Your task to perform on an android device: Open eBay Image 0: 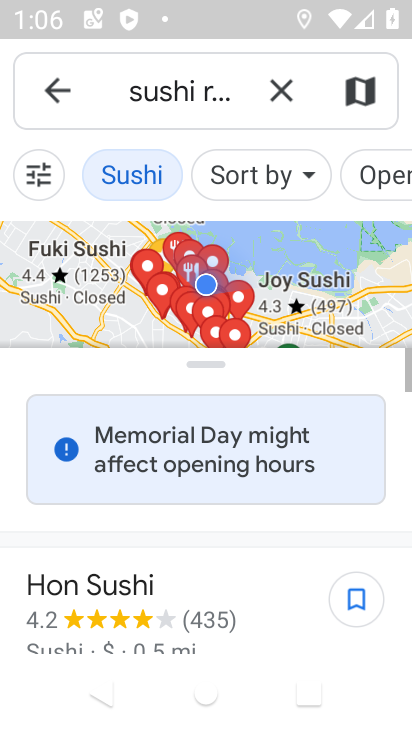
Step 0: press home button
Your task to perform on an android device: Open eBay Image 1: 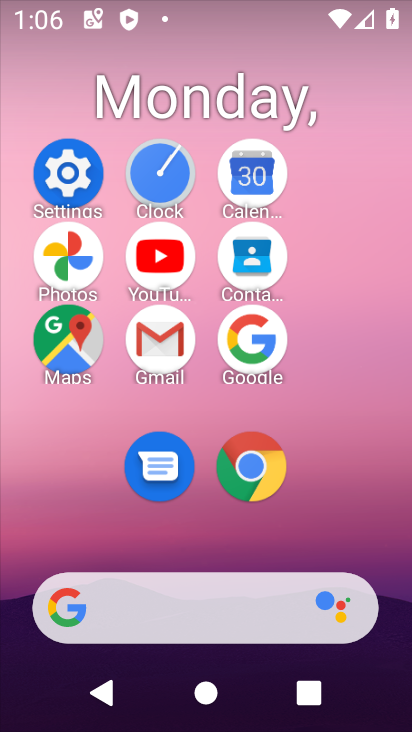
Step 1: click (245, 454)
Your task to perform on an android device: Open eBay Image 2: 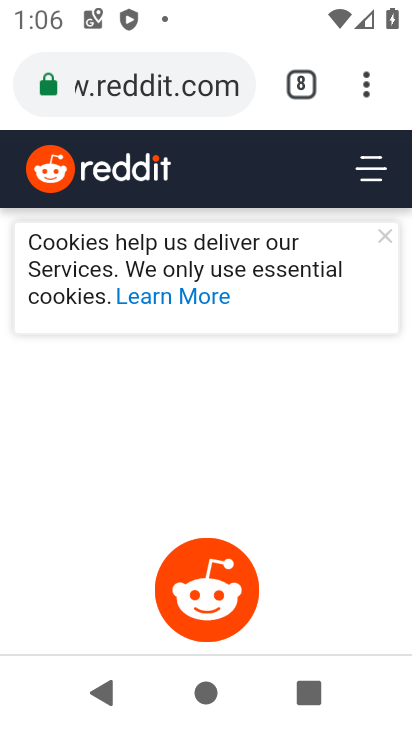
Step 2: click (308, 83)
Your task to perform on an android device: Open eBay Image 3: 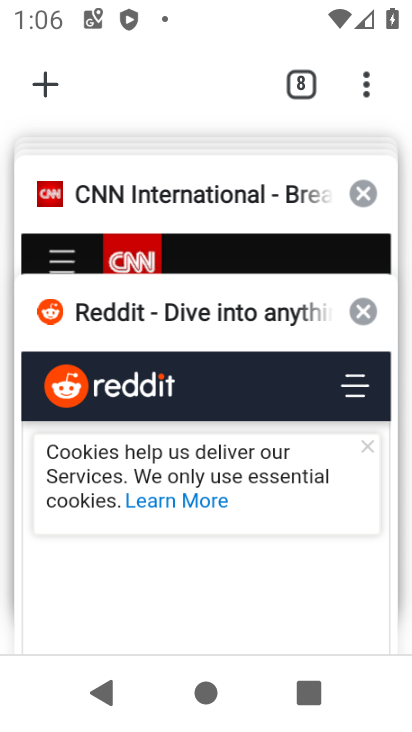
Step 3: drag from (236, 160) to (200, 532)
Your task to perform on an android device: Open eBay Image 4: 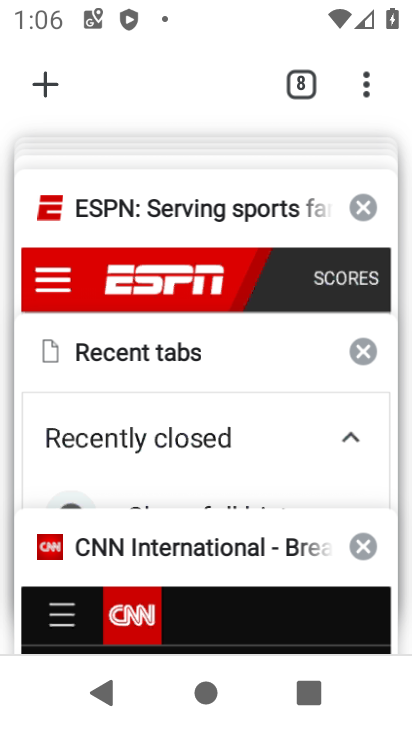
Step 4: drag from (216, 274) to (204, 649)
Your task to perform on an android device: Open eBay Image 5: 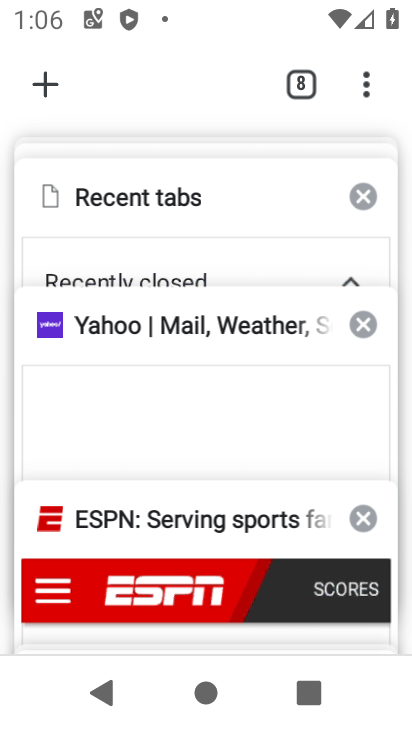
Step 5: drag from (210, 214) to (197, 492)
Your task to perform on an android device: Open eBay Image 6: 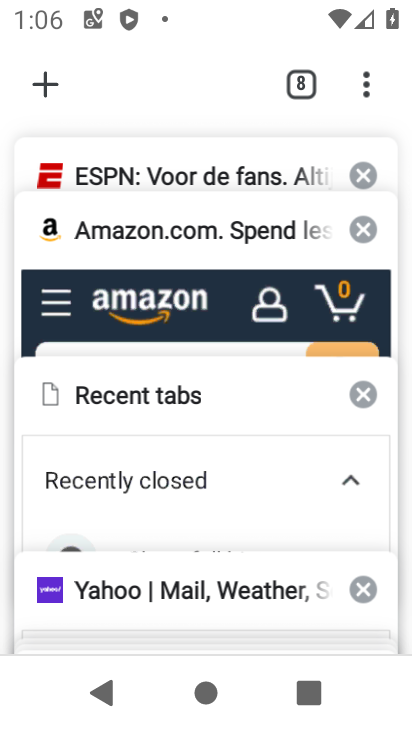
Step 6: click (55, 85)
Your task to perform on an android device: Open eBay Image 7: 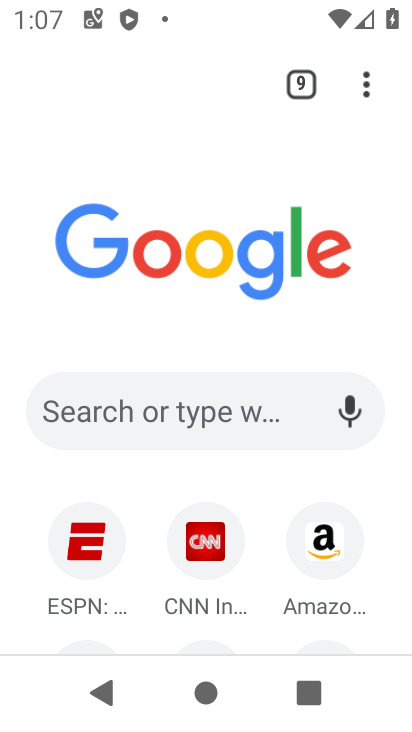
Step 7: drag from (277, 515) to (253, 181)
Your task to perform on an android device: Open eBay Image 8: 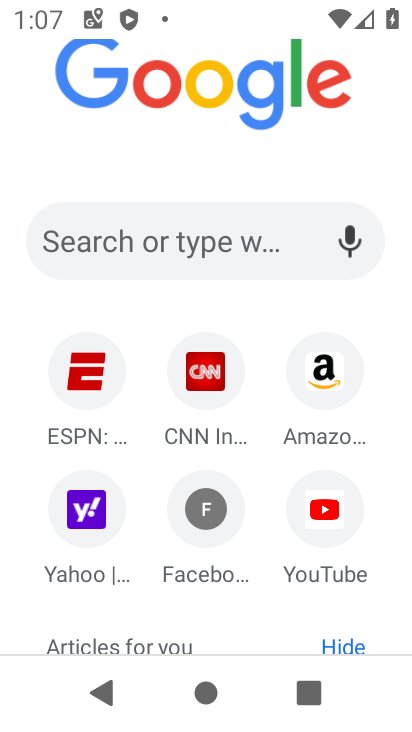
Step 8: click (252, 249)
Your task to perform on an android device: Open eBay Image 9: 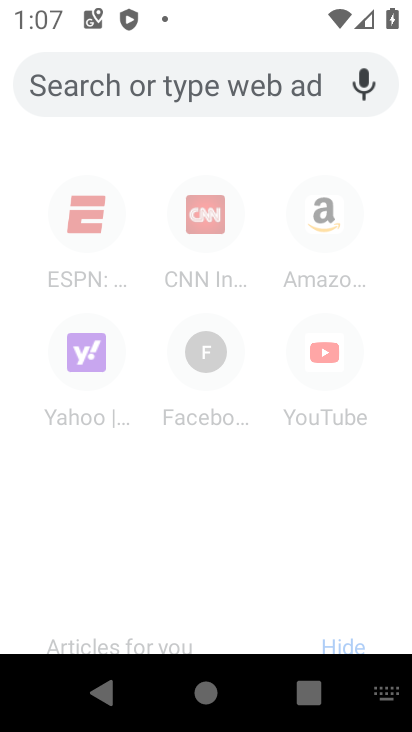
Step 9: type "ebay"
Your task to perform on an android device: Open eBay Image 10: 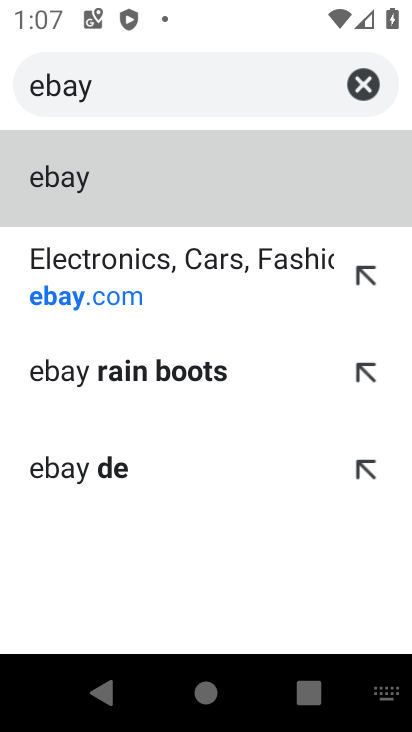
Step 10: click (47, 297)
Your task to perform on an android device: Open eBay Image 11: 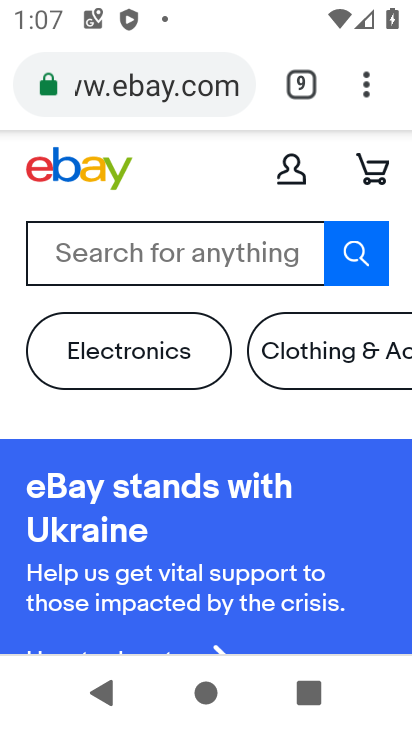
Step 11: task complete